Your task to perform on an android device: turn off data saver in the chrome app Image 0: 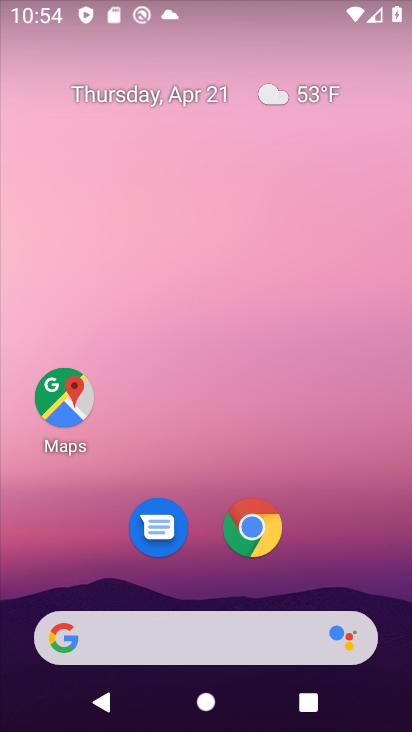
Step 0: drag from (341, 555) to (350, 133)
Your task to perform on an android device: turn off data saver in the chrome app Image 1: 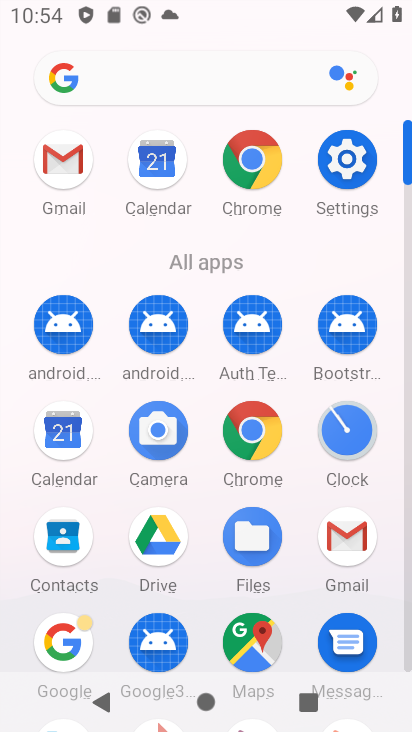
Step 1: click (246, 161)
Your task to perform on an android device: turn off data saver in the chrome app Image 2: 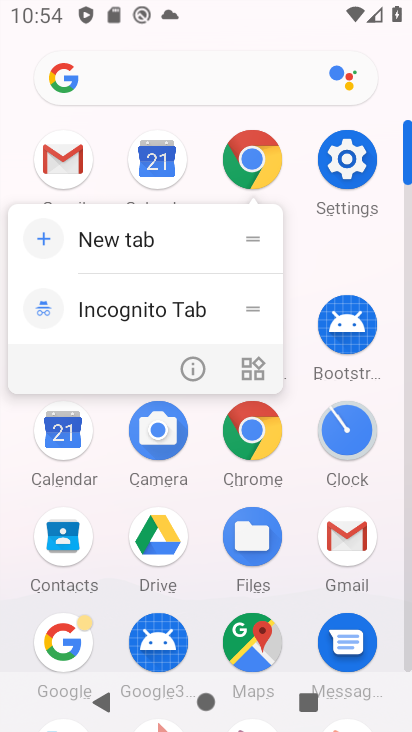
Step 2: click (246, 161)
Your task to perform on an android device: turn off data saver in the chrome app Image 3: 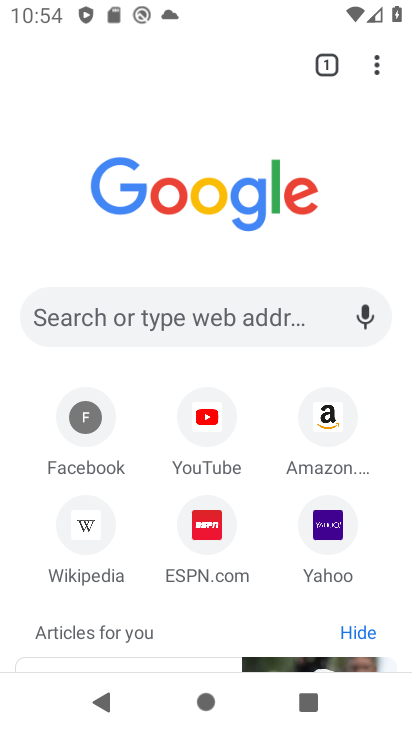
Step 3: click (378, 64)
Your task to perform on an android device: turn off data saver in the chrome app Image 4: 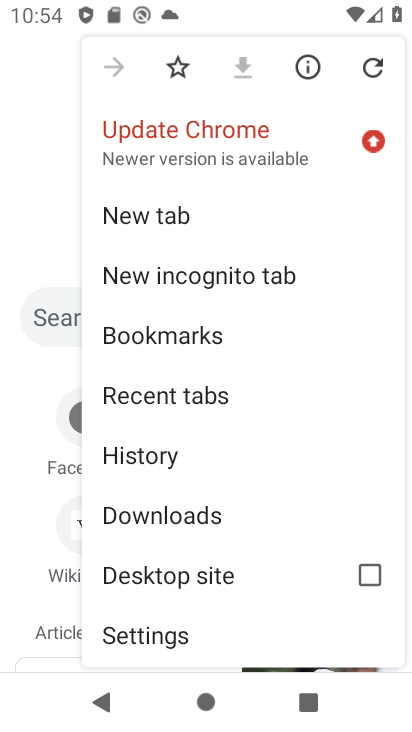
Step 4: drag from (293, 553) to (269, 369)
Your task to perform on an android device: turn off data saver in the chrome app Image 5: 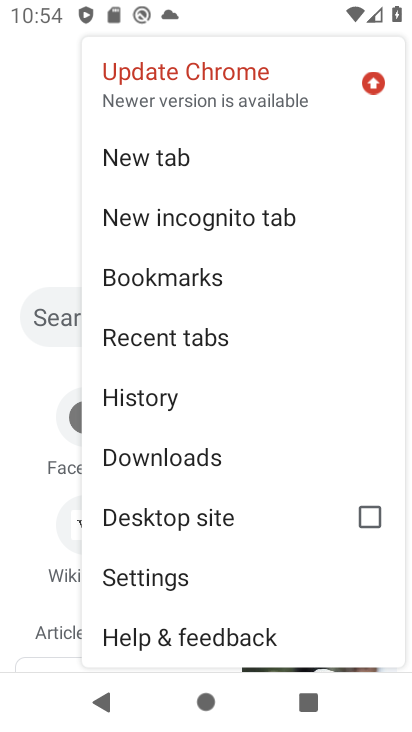
Step 5: click (172, 580)
Your task to perform on an android device: turn off data saver in the chrome app Image 6: 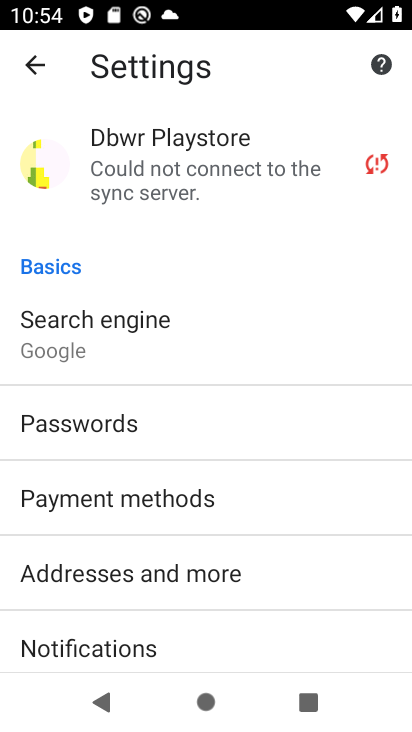
Step 6: drag from (302, 579) to (302, 411)
Your task to perform on an android device: turn off data saver in the chrome app Image 7: 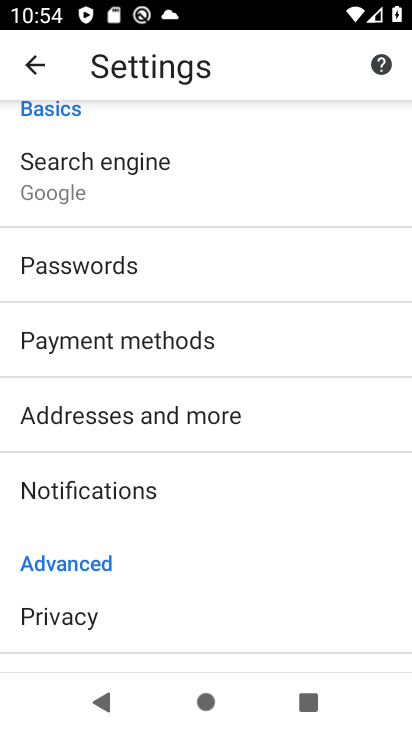
Step 7: drag from (305, 575) to (301, 423)
Your task to perform on an android device: turn off data saver in the chrome app Image 8: 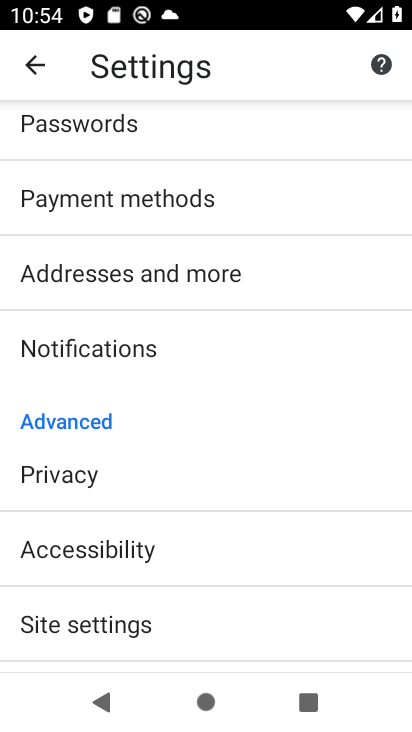
Step 8: drag from (313, 587) to (312, 432)
Your task to perform on an android device: turn off data saver in the chrome app Image 9: 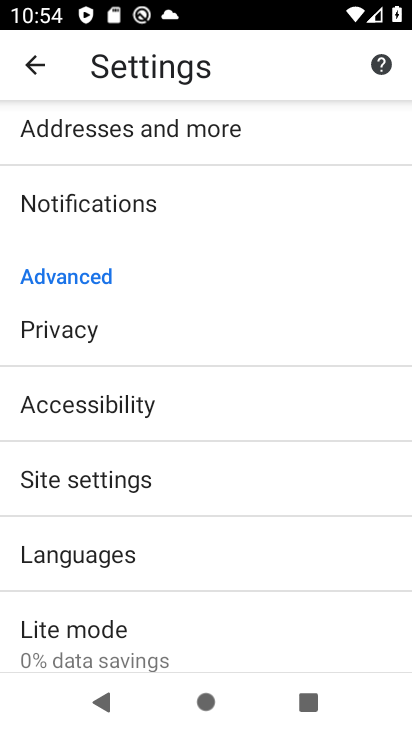
Step 9: drag from (319, 574) to (321, 453)
Your task to perform on an android device: turn off data saver in the chrome app Image 10: 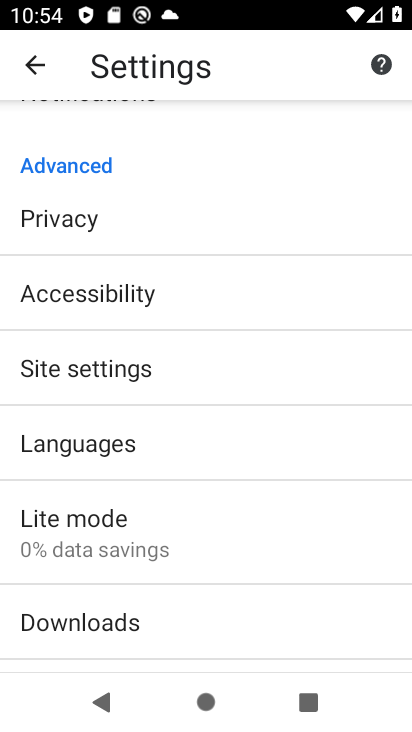
Step 10: drag from (313, 547) to (320, 403)
Your task to perform on an android device: turn off data saver in the chrome app Image 11: 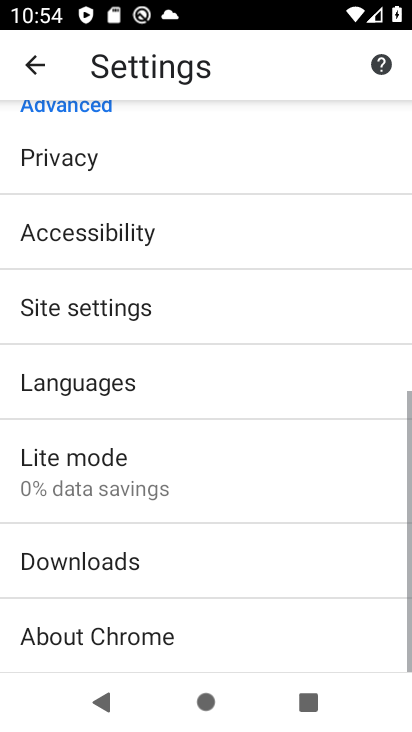
Step 11: click (313, 465)
Your task to perform on an android device: turn off data saver in the chrome app Image 12: 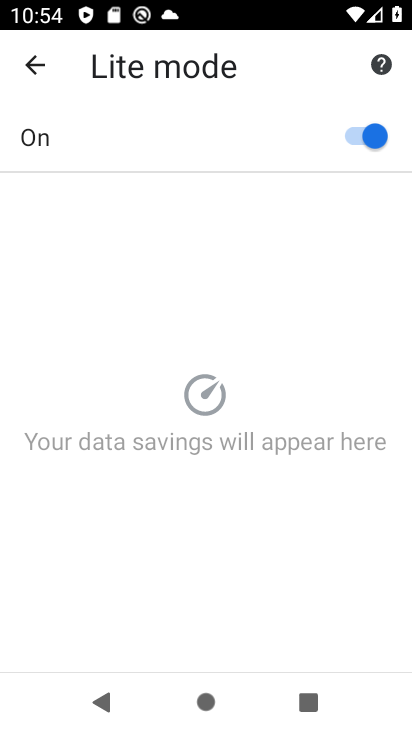
Step 12: click (356, 130)
Your task to perform on an android device: turn off data saver in the chrome app Image 13: 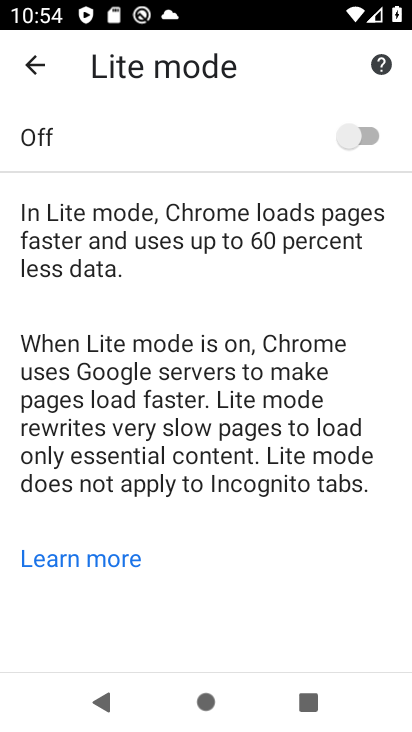
Step 13: task complete